Your task to perform on an android device: Open battery settings Image 0: 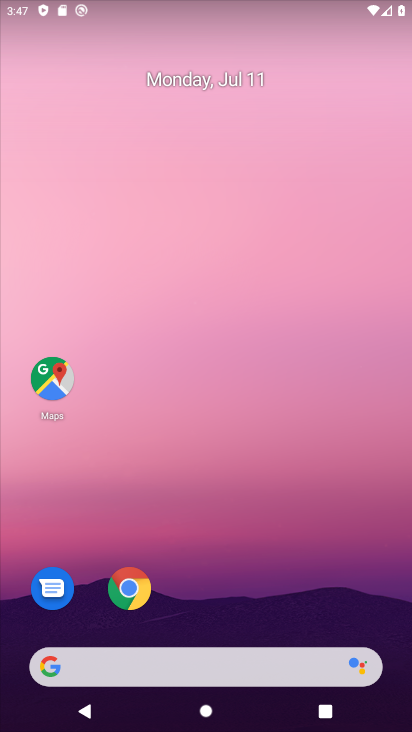
Step 0: drag from (210, 664) to (212, 121)
Your task to perform on an android device: Open battery settings Image 1: 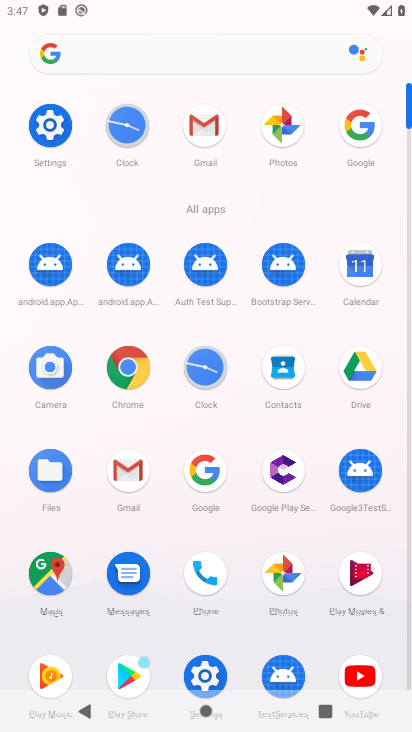
Step 1: click (48, 123)
Your task to perform on an android device: Open battery settings Image 2: 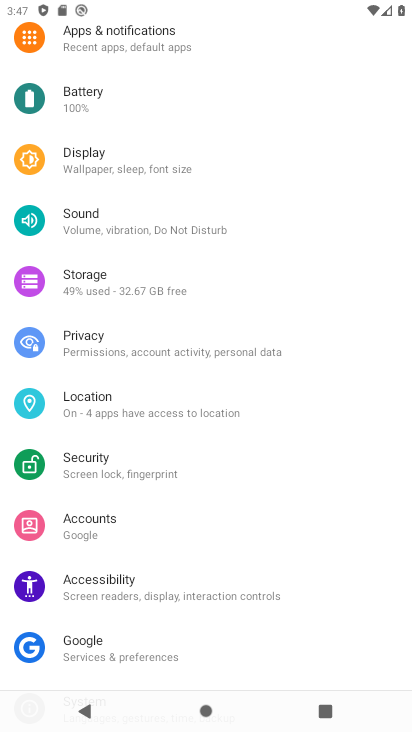
Step 2: click (82, 92)
Your task to perform on an android device: Open battery settings Image 3: 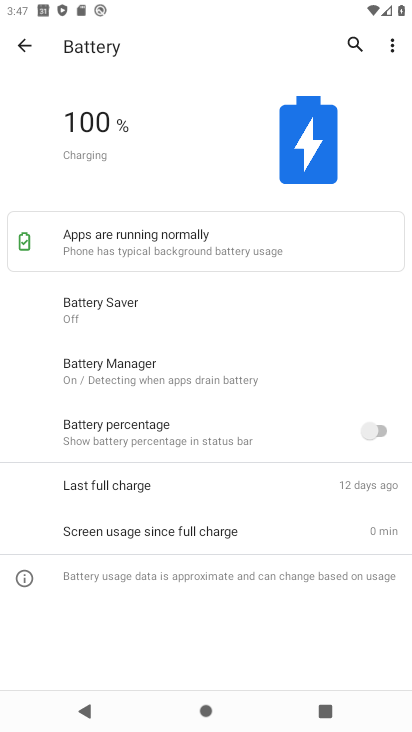
Step 3: task complete